Your task to perform on an android device: Open Google Chrome and click the shortcut for Amazon.com Image 0: 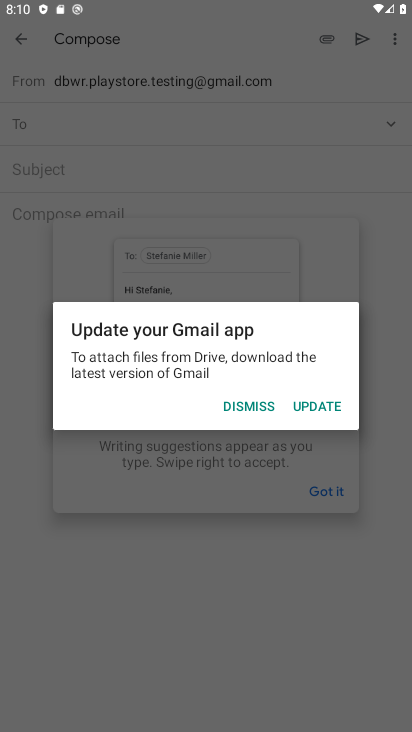
Step 0: press home button
Your task to perform on an android device: Open Google Chrome and click the shortcut for Amazon.com Image 1: 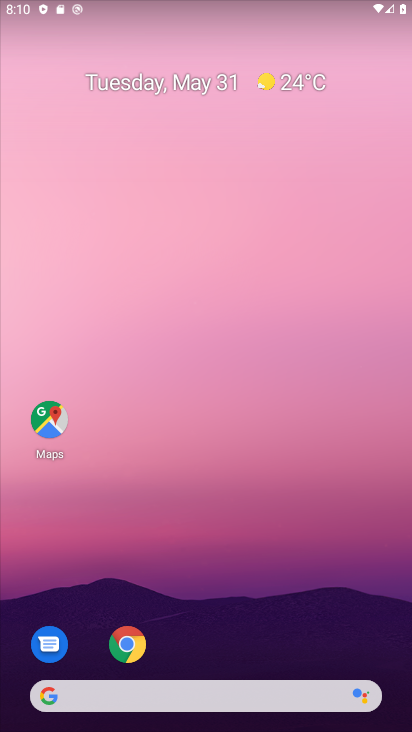
Step 1: drag from (296, 601) to (311, 144)
Your task to perform on an android device: Open Google Chrome and click the shortcut for Amazon.com Image 2: 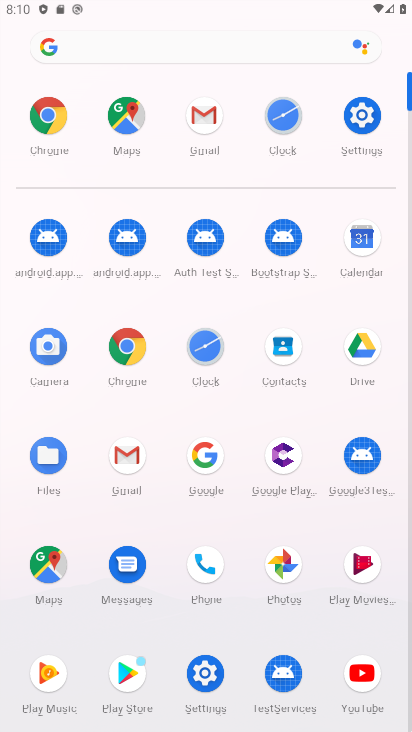
Step 2: click (123, 361)
Your task to perform on an android device: Open Google Chrome and click the shortcut for Amazon.com Image 3: 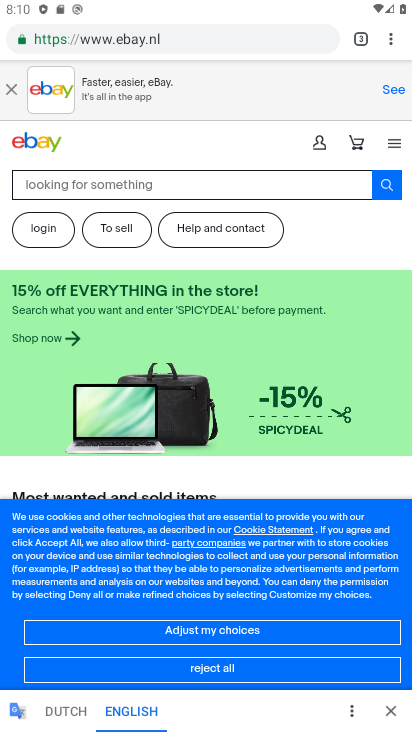
Step 3: click (360, 45)
Your task to perform on an android device: Open Google Chrome and click the shortcut for Amazon.com Image 4: 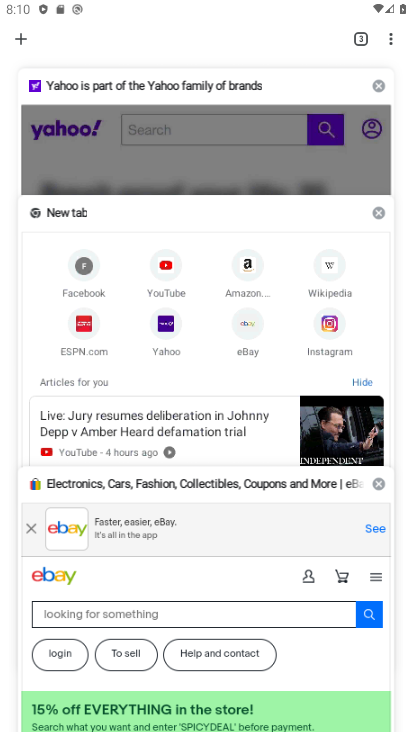
Step 4: click (26, 42)
Your task to perform on an android device: Open Google Chrome and click the shortcut for Amazon.com Image 5: 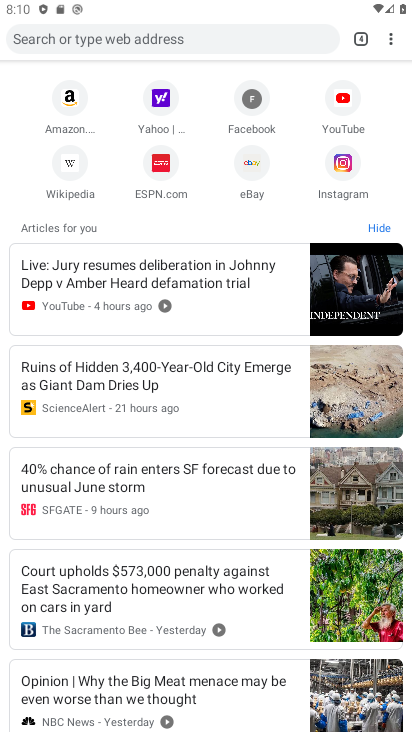
Step 5: click (71, 105)
Your task to perform on an android device: Open Google Chrome and click the shortcut for Amazon.com Image 6: 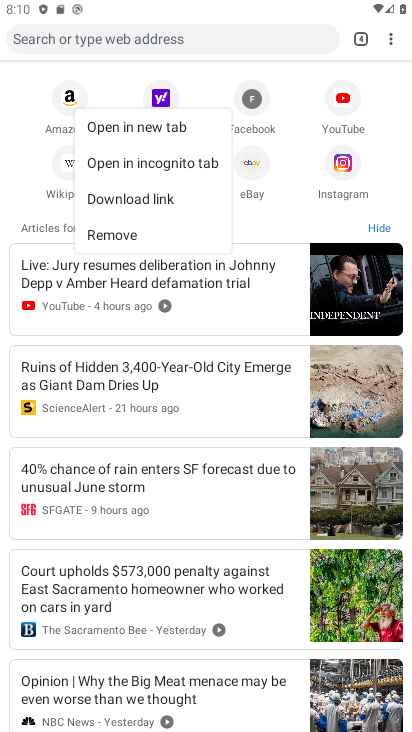
Step 6: click (78, 97)
Your task to perform on an android device: Open Google Chrome and click the shortcut for Amazon.com Image 7: 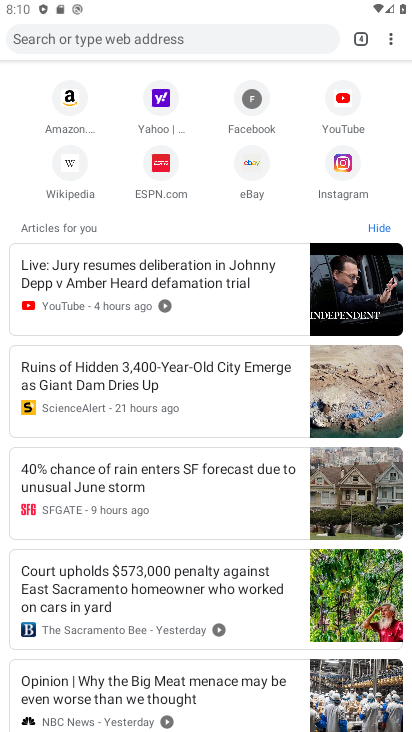
Step 7: click (65, 110)
Your task to perform on an android device: Open Google Chrome and click the shortcut for Amazon.com Image 8: 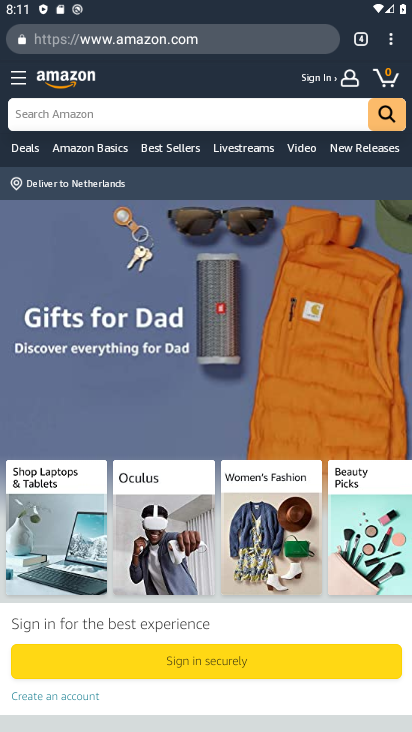
Step 8: task complete